Your task to perform on an android device: uninstall "Microsoft Authenticator" Image 0: 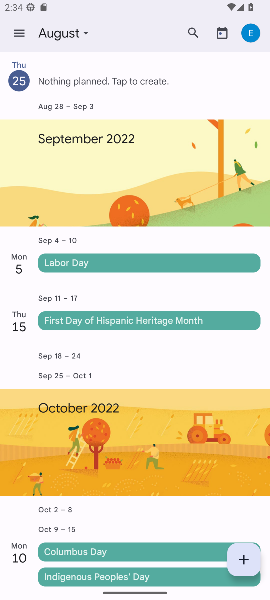
Step 0: press home button
Your task to perform on an android device: uninstall "Microsoft Authenticator" Image 1: 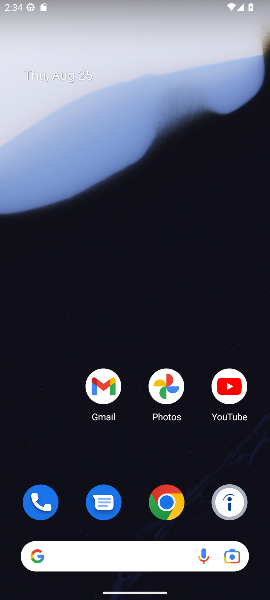
Step 1: drag from (142, 526) to (178, 104)
Your task to perform on an android device: uninstall "Microsoft Authenticator" Image 2: 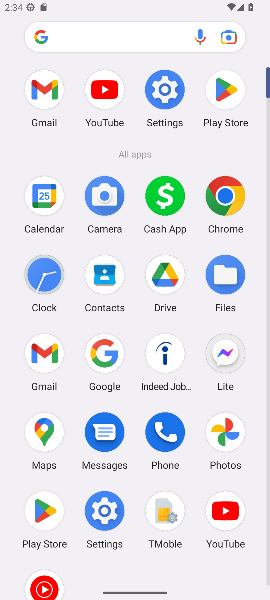
Step 2: click (210, 96)
Your task to perform on an android device: uninstall "Microsoft Authenticator" Image 3: 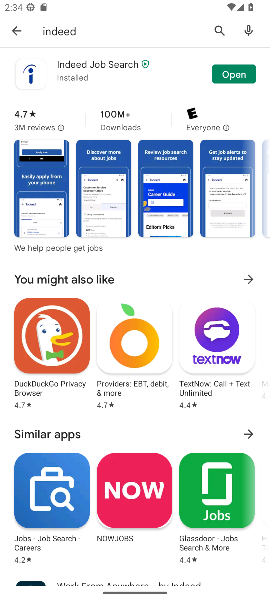
Step 3: click (216, 27)
Your task to perform on an android device: uninstall "Microsoft Authenticator" Image 4: 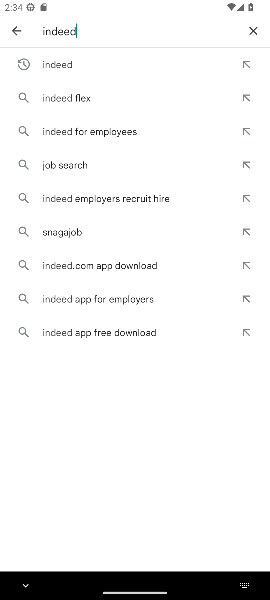
Step 4: click (251, 32)
Your task to perform on an android device: uninstall "Microsoft Authenticator" Image 5: 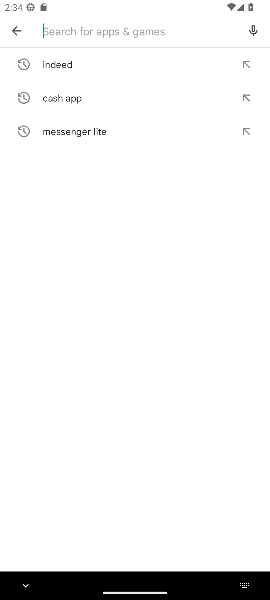
Step 5: type "microsoft "
Your task to perform on an android device: uninstall "Microsoft Authenticator" Image 6: 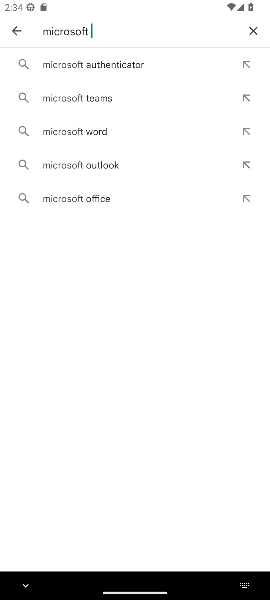
Step 6: click (126, 74)
Your task to perform on an android device: uninstall "Microsoft Authenticator" Image 7: 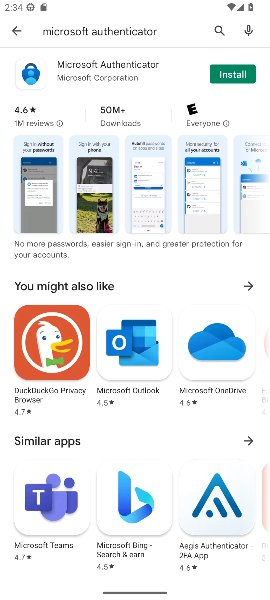
Step 7: click (231, 84)
Your task to perform on an android device: uninstall "Microsoft Authenticator" Image 8: 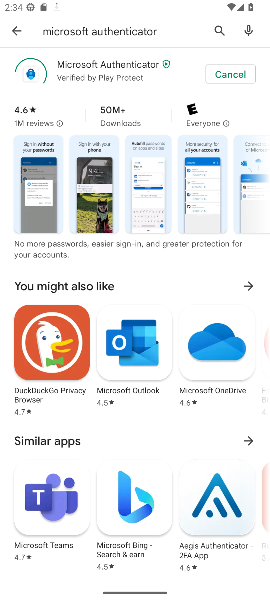
Step 8: task complete